Your task to perform on an android device: Search for "asus rog" on bestbuy.com, select the first entry, add it to the cart, then select checkout. Image 0: 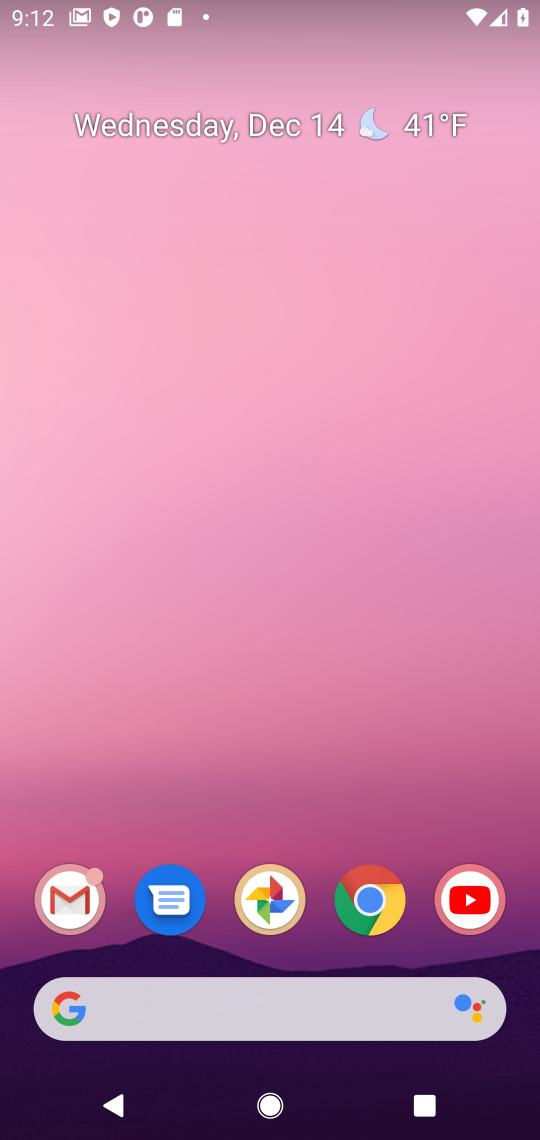
Step 0: click (378, 907)
Your task to perform on an android device: Search for "asus rog" on bestbuy.com, select the first entry, add it to the cart, then select checkout. Image 1: 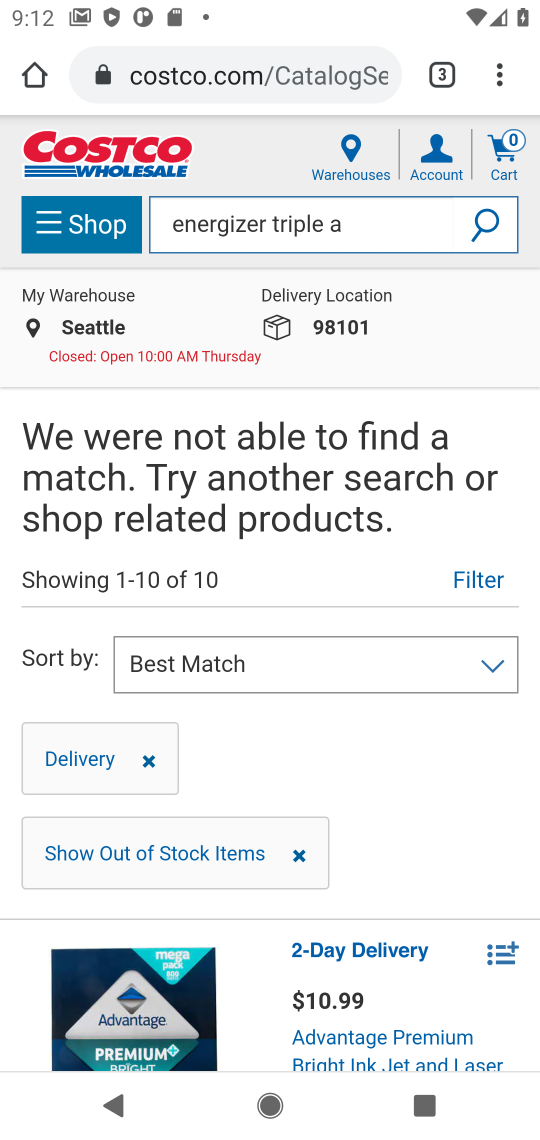
Step 1: click (197, 71)
Your task to perform on an android device: Search for "asus rog" on bestbuy.com, select the first entry, add it to the cart, then select checkout. Image 2: 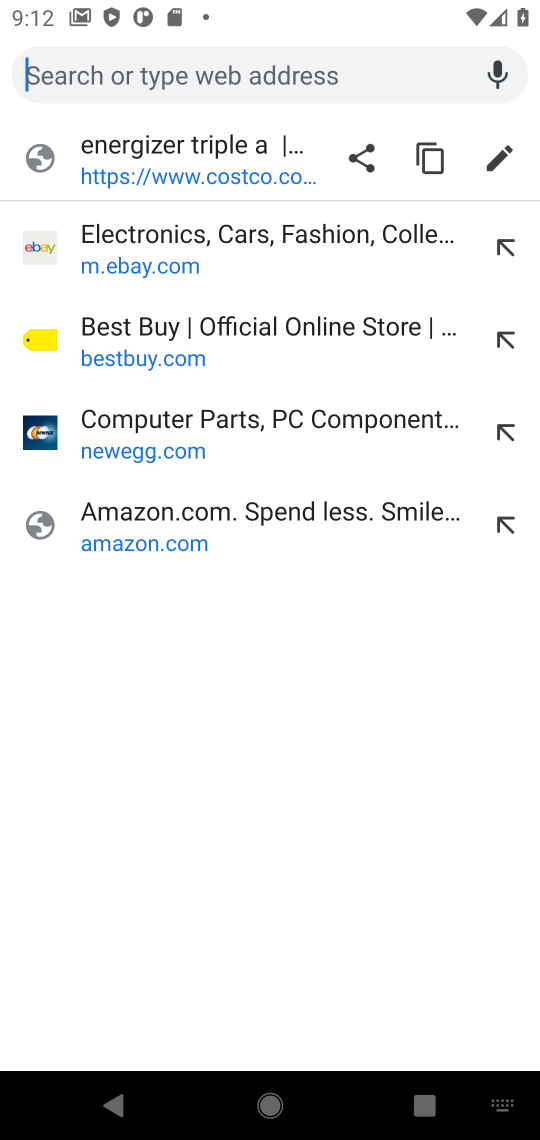
Step 2: click (163, 332)
Your task to perform on an android device: Search for "asus rog" on bestbuy.com, select the first entry, add it to the cart, then select checkout. Image 3: 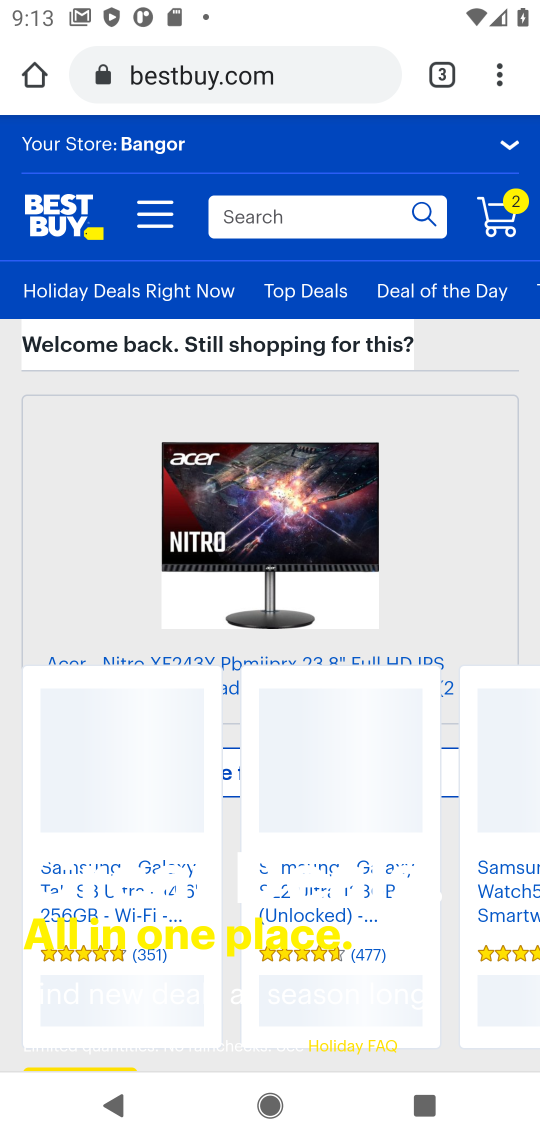
Step 3: click (251, 212)
Your task to perform on an android device: Search for "asus rog" on bestbuy.com, select the first entry, add it to the cart, then select checkout. Image 4: 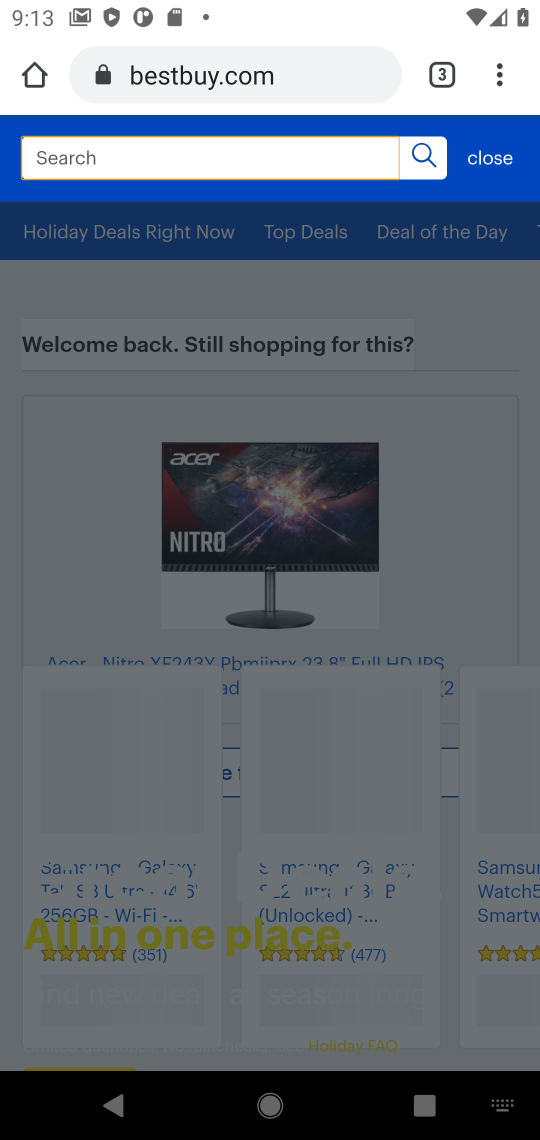
Step 4: type "asus rog"
Your task to perform on an android device: Search for "asus rog" on bestbuy.com, select the first entry, add it to the cart, then select checkout. Image 5: 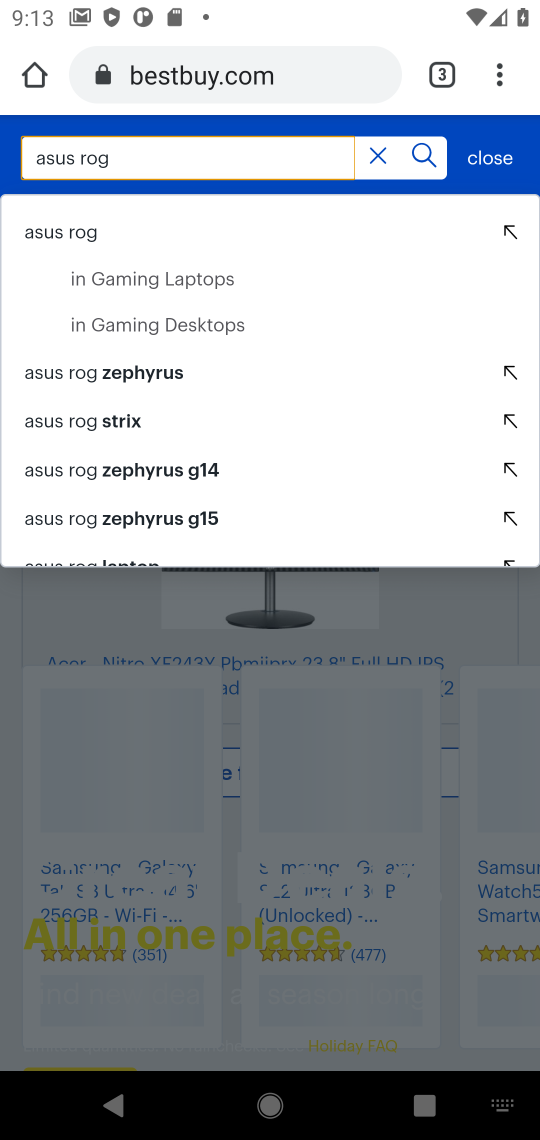
Step 5: click (49, 240)
Your task to perform on an android device: Search for "asus rog" on bestbuy.com, select the first entry, add it to the cart, then select checkout. Image 6: 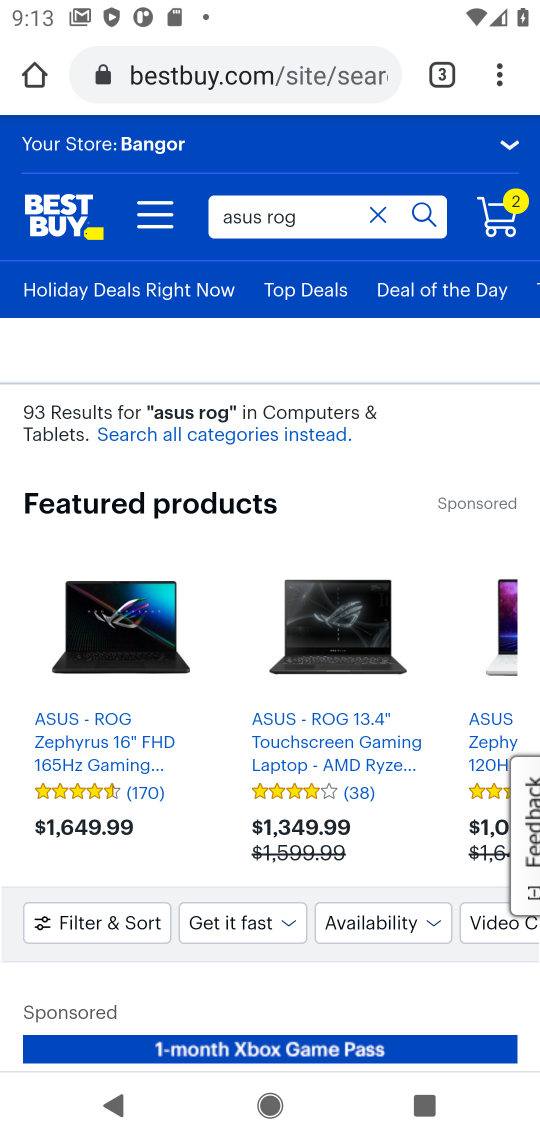
Step 6: drag from (188, 858) to (219, 421)
Your task to perform on an android device: Search for "asus rog" on bestbuy.com, select the first entry, add it to the cart, then select checkout. Image 7: 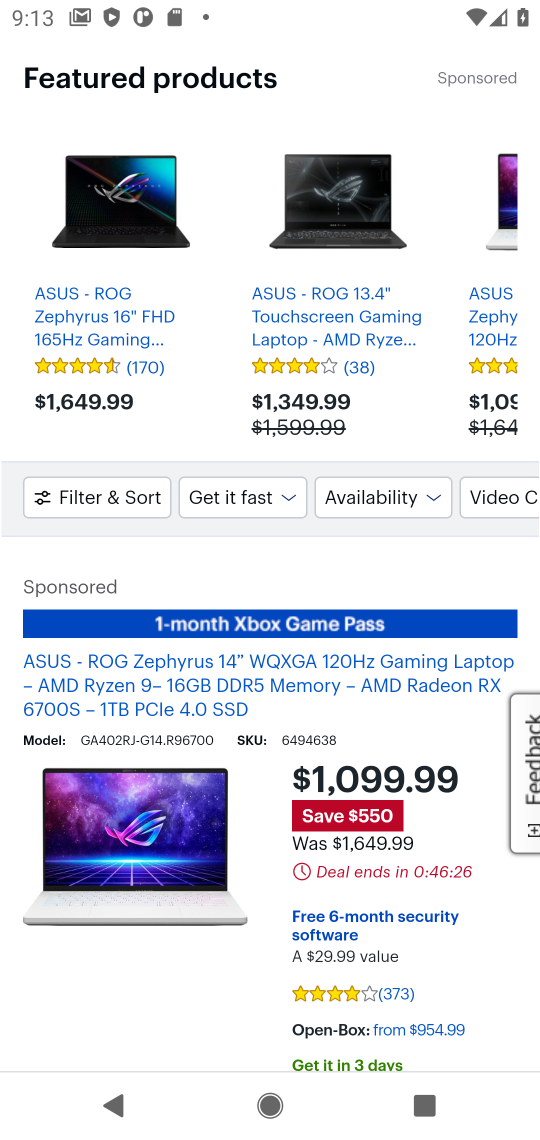
Step 7: drag from (217, 886) to (222, 566)
Your task to perform on an android device: Search for "asus rog" on bestbuy.com, select the first entry, add it to the cart, then select checkout. Image 8: 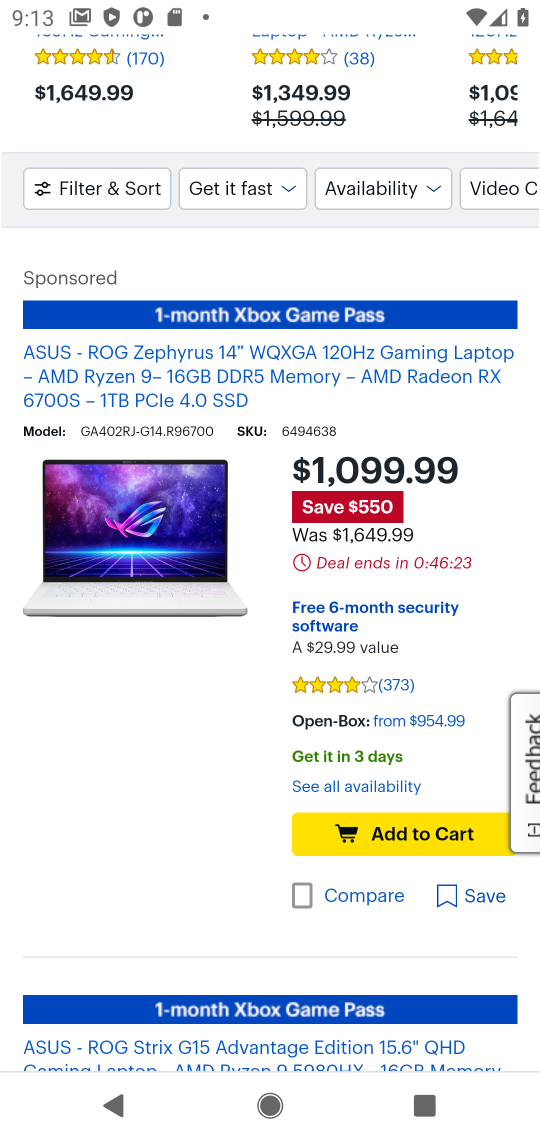
Step 8: click (376, 832)
Your task to perform on an android device: Search for "asus rog" on bestbuy.com, select the first entry, add it to the cart, then select checkout. Image 9: 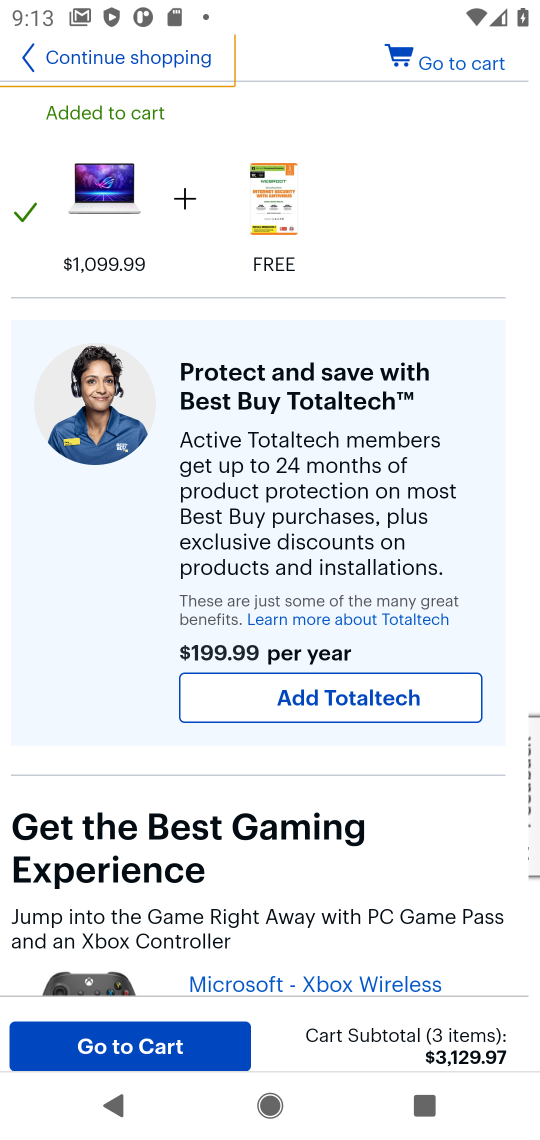
Step 9: click (462, 67)
Your task to perform on an android device: Search for "asus rog" on bestbuy.com, select the first entry, add it to the cart, then select checkout. Image 10: 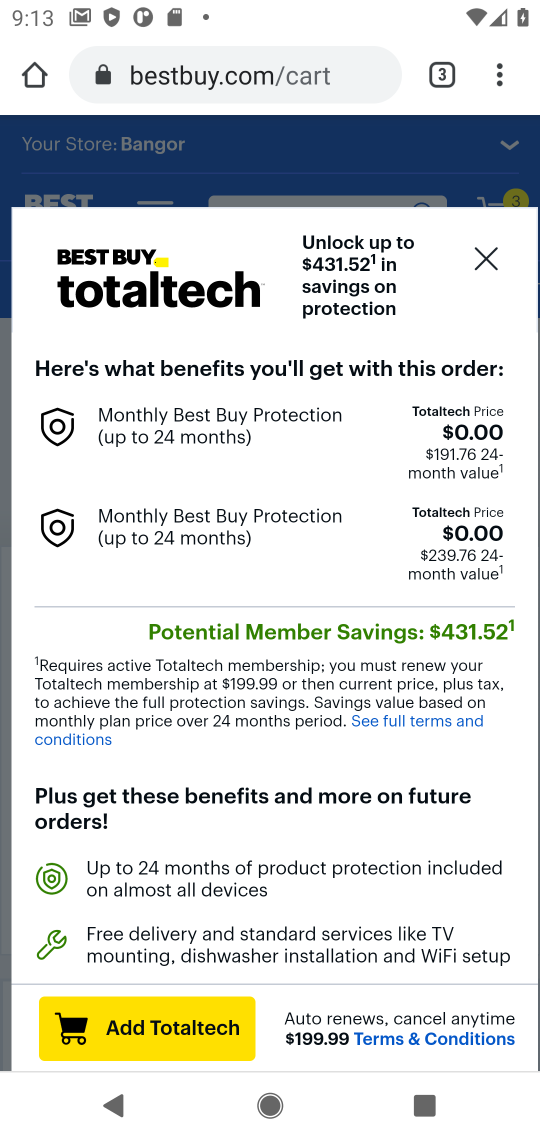
Step 10: click (259, 891)
Your task to perform on an android device: Search for "asus rog" on bestbuy.com, select the first entry, add it to the cart, then select checkout. Image 11: 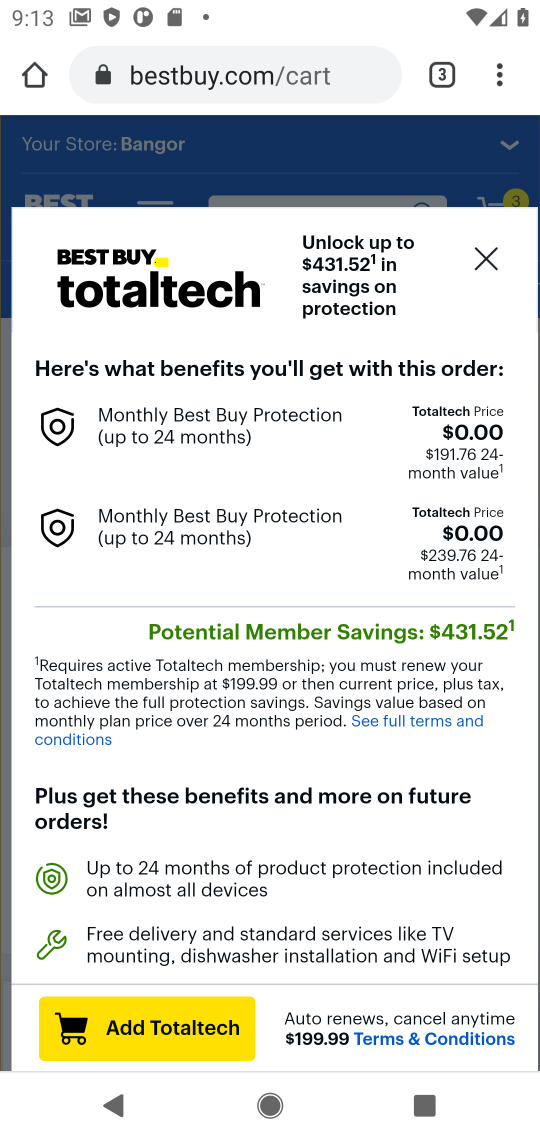
Step 11: click (471, 264)
Your task to perform on an android device: Search for "asus rog" on bestbuy.com, select the first entry, add it to the cart, then select checkout. Image 12: 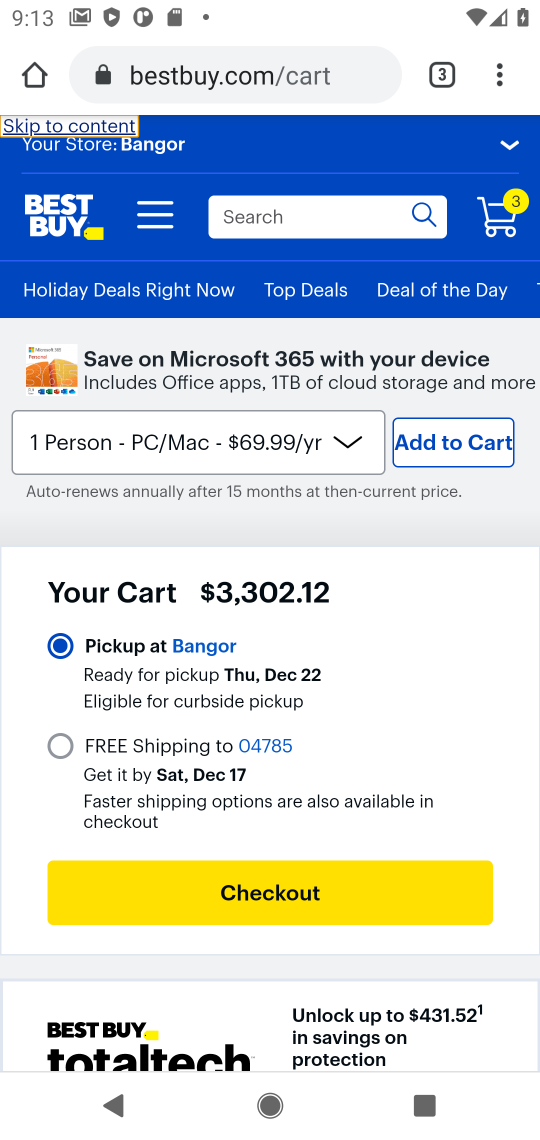
Step 12: click (242, 886)
Your task to perform on an android device: Search for "asus rog" on bestbuy.com, select the first entry, add it to the cart, then select checkout. Image 13: 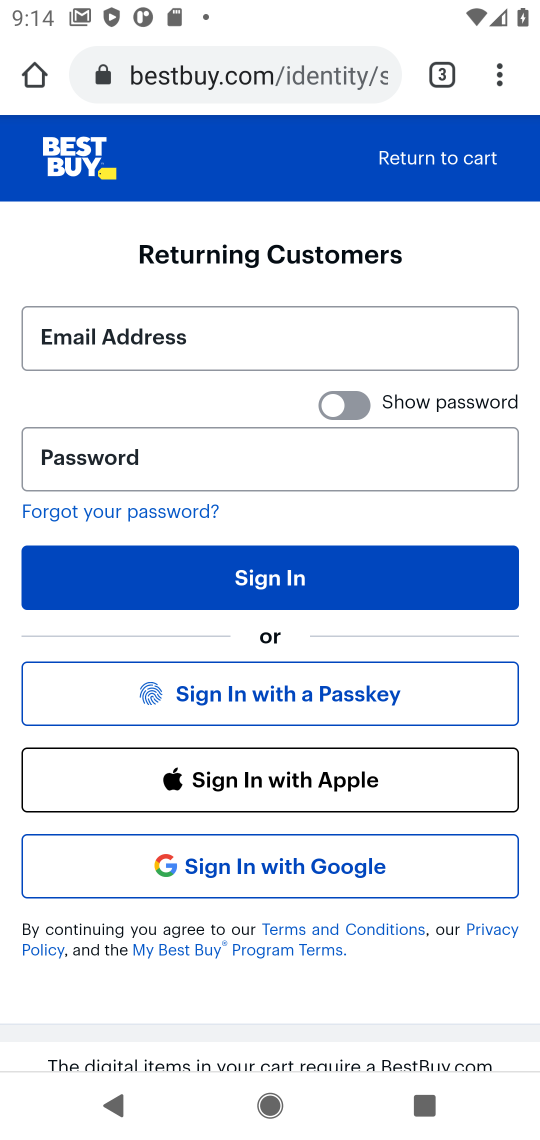
Step 13: task complete